Your task to perform on an android device: turn on bluetooth scan Image 0: 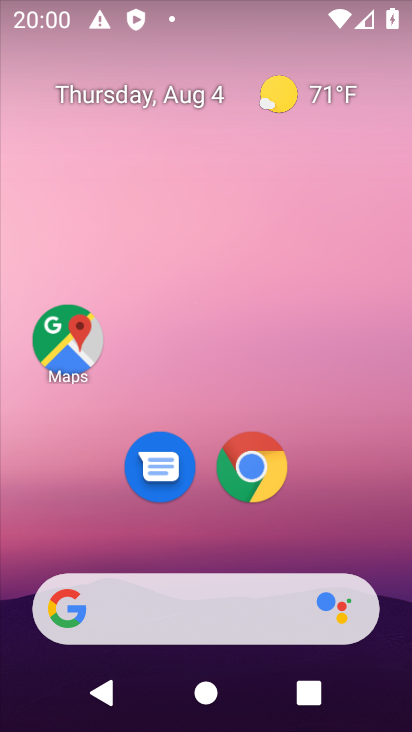
Step 0: press home button
Your task to perform on an android device: turn on bluetooth scan Image 1: 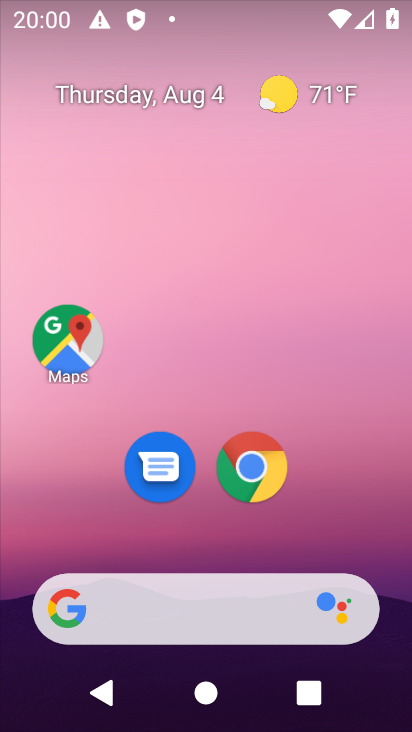
Step 1: drag from (326, 533) to (378, 43)
Your task to perform on an android device: turn on bluetooth scan Image 2: 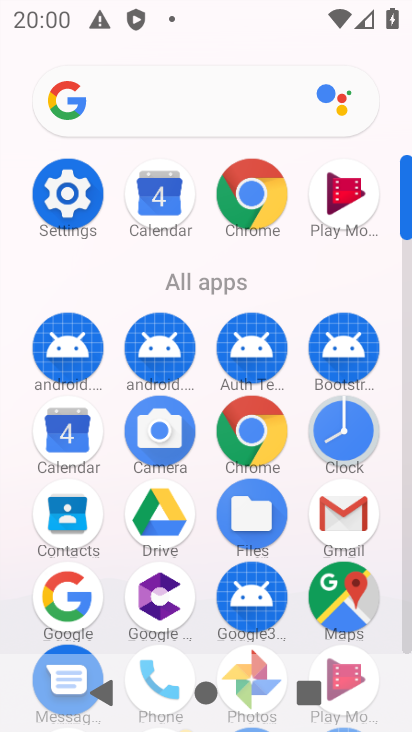
Step 2: click (65, 190)
Your task to perform on an android device: turn on bluetooth scan Image 3: 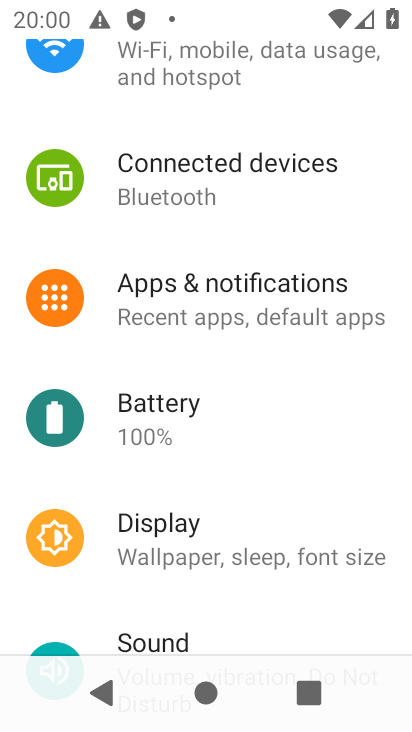
Step 3: drag from (276, 486) to (294, 180)
Your task to perform on an android device: turn on bluetooth scan Image 4: 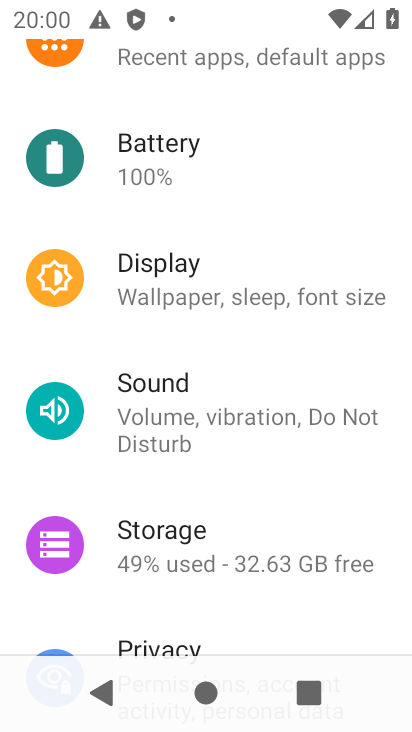
Step 4: drag from (257, 525) to (292, 146)
Your task to perform on an android device: turn on bluetooth scan Image 5: 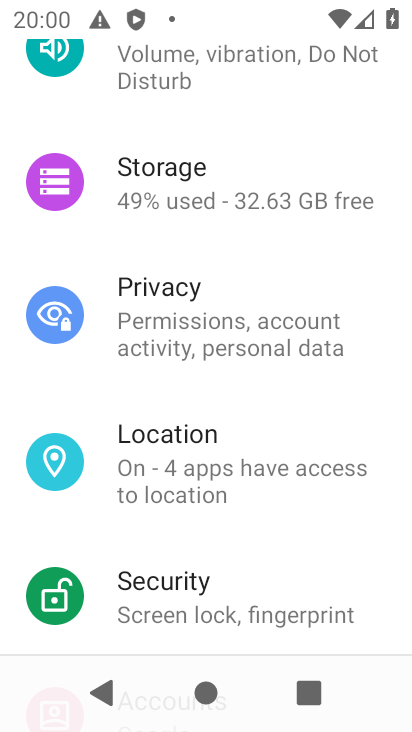
Step 5: click (195, 469)
Your task to perform on an android device: turn on bluetooth scan Image 6: 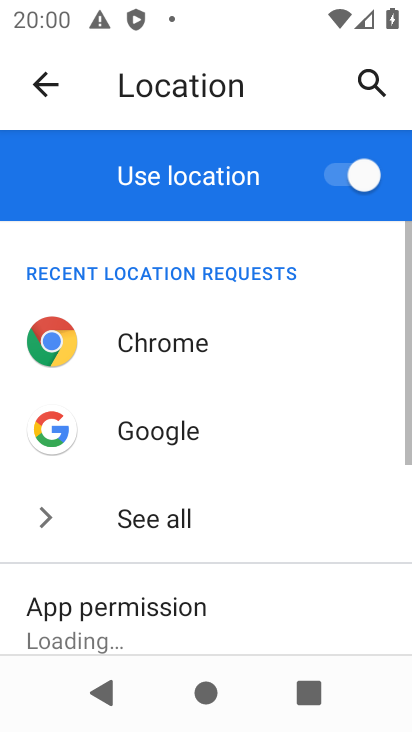
Step 6: drag from (295, 553) to (354, 10)
Your task to perform on an android device: turn on bluetooth scan Image 7: 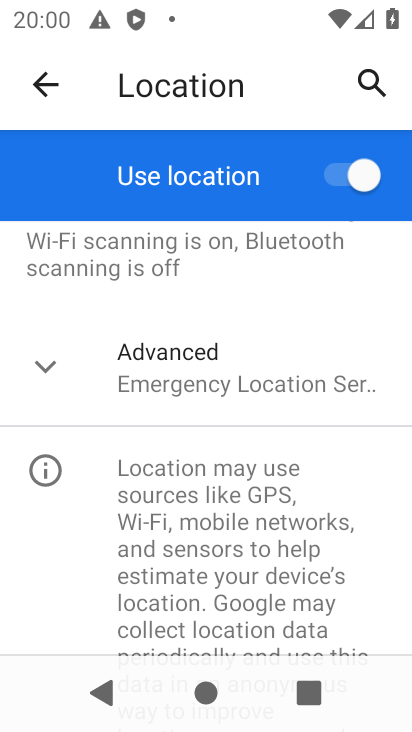
Step 7: click (196, 383)
Your task to perform on an android device: turn on bluetooth scan Image 8: 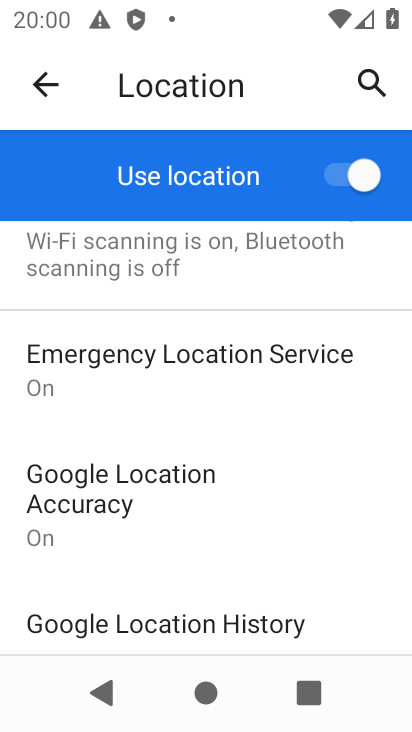
Step 8: drag from (235, 503) to (293, 96)
Your task to perform on an android device: turn on bluetooth scan Image 9: 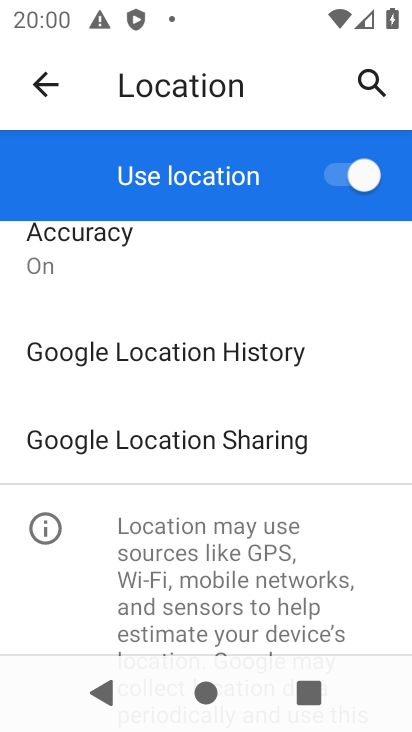
Step 9: drag from (263, 262) to (236, 692)
Your task to perform on an android device: turn on bluetooth scan Image 10: 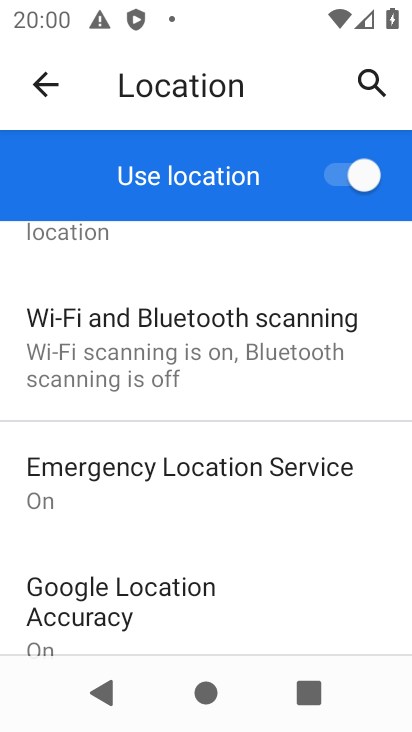
Step 10: click (248, 343)
Your task to perform on an android device: turn on bluetooth scan Image 11: 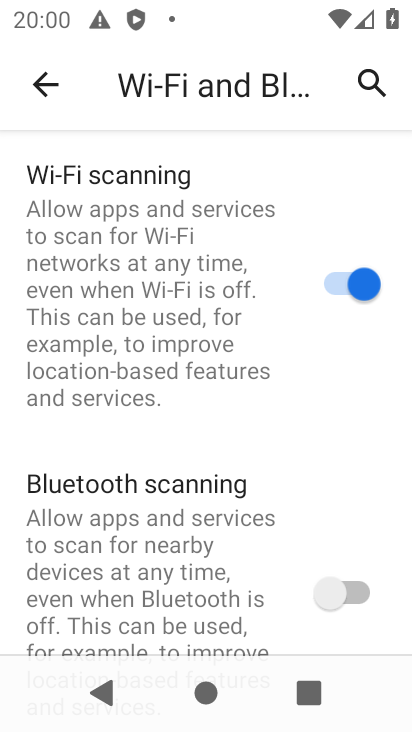
Step 11: click (309, 587)
Your task to perform on an android device: turn on bluetooth scan Image 12: 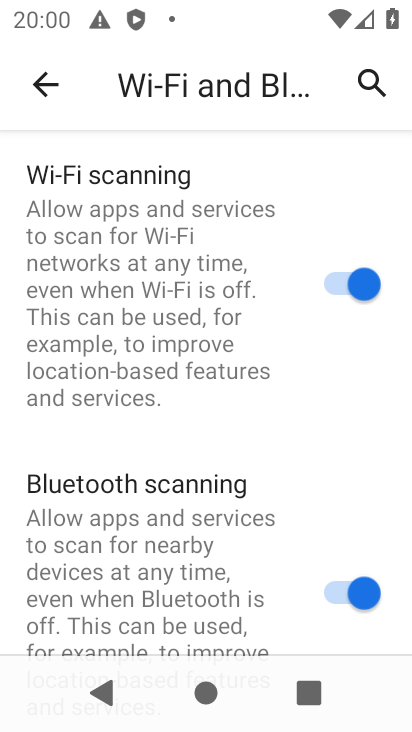
Step 12: task complete